Your task to perform on an android device: Open settings on Google Maps Image 0: 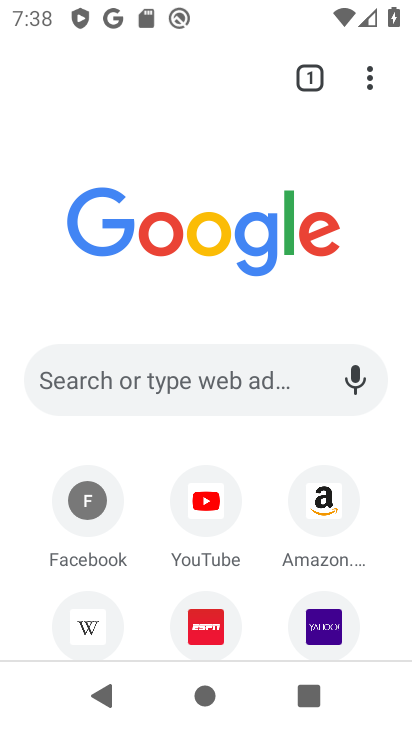
Step 0: press home button
Your task to perform on an android device: Open settings on Google Maps Image 1: 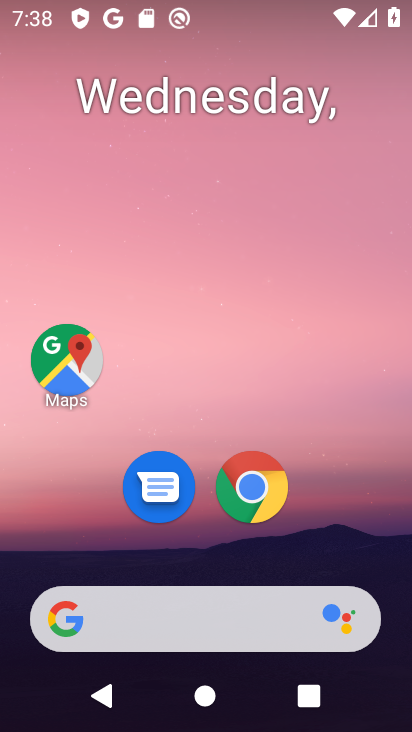
Step 1: drag from (139, 646) to (163, 125)
Your task to perform on an android device: Open settings on Google Maps Image 2: 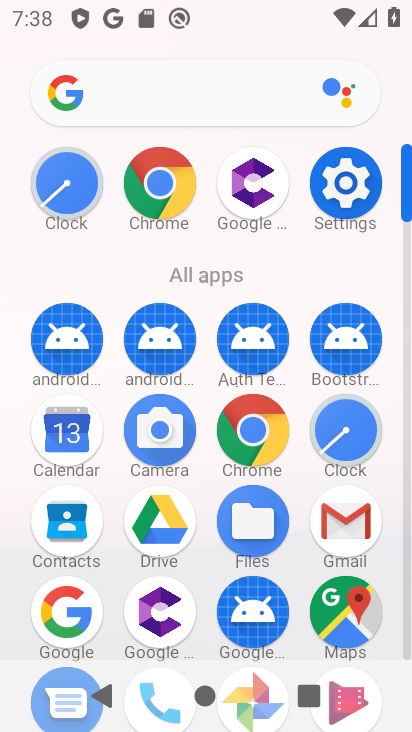
Step 2: drag from (246, 443) to (249, 189)
Your task to perform on an android device: Open settings on Google Maps Image 3: 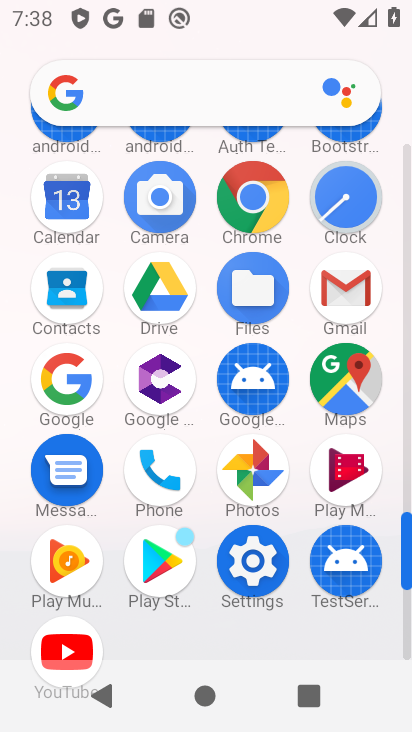
Step 3: click (350, 390)
Your task to perform on an android device: Open settings on Google Maps Image 4: 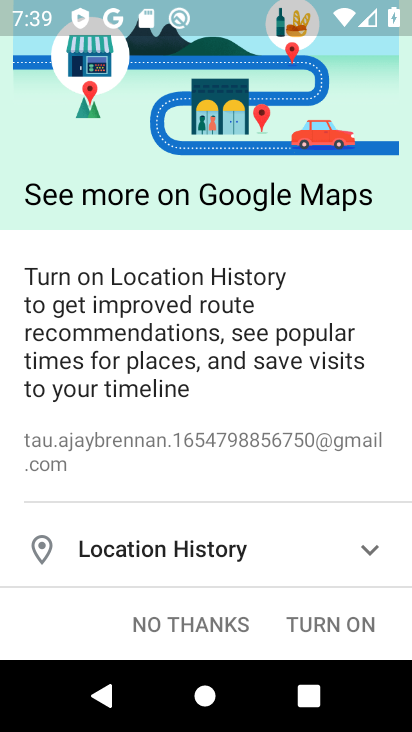
Step 4: click (341, 624)
Your task to perform on an android device: Open settings on Google Maps Image 5: 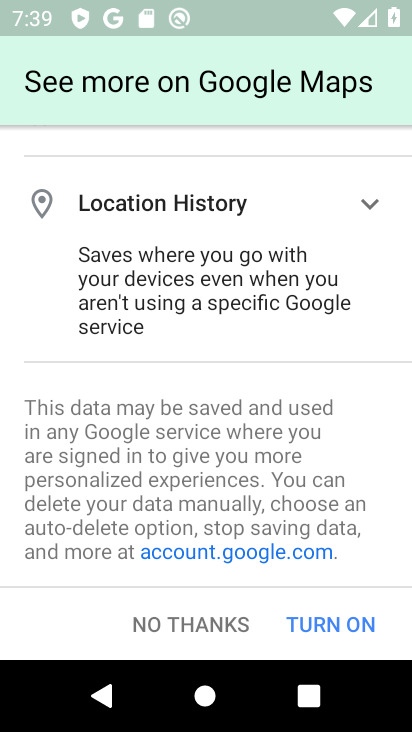
Step 5: click (343, 624)
Your task to perform on an android device: Open settings on Google Maps Image 6: 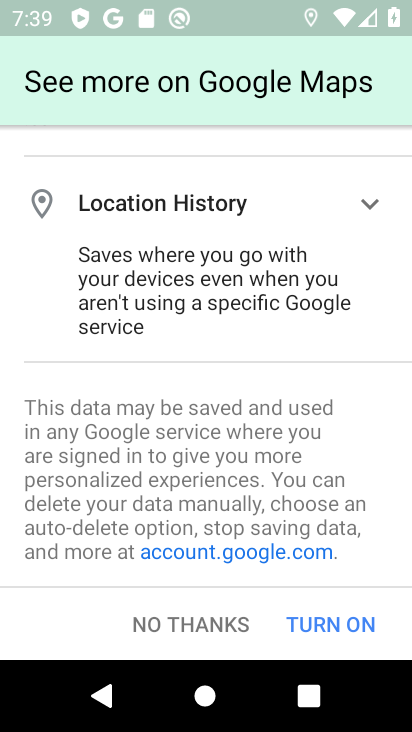
Step 6: click (345, 623)
Your task to perform on an android device: Open settings on Google Maps Image 7: 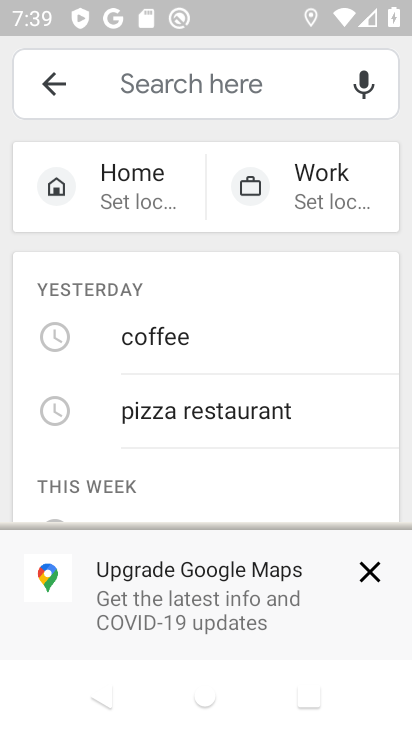
Step 7: click (374, 579)
Your task to perform on an android device: Open settings on Google Maps Image 8: 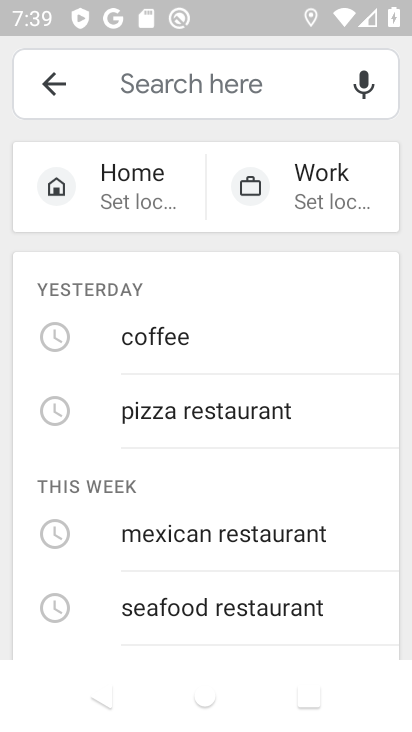
Step 8: click (58, 88)
Your task to perform on an android device: Open settings on Google Maps Image 9: 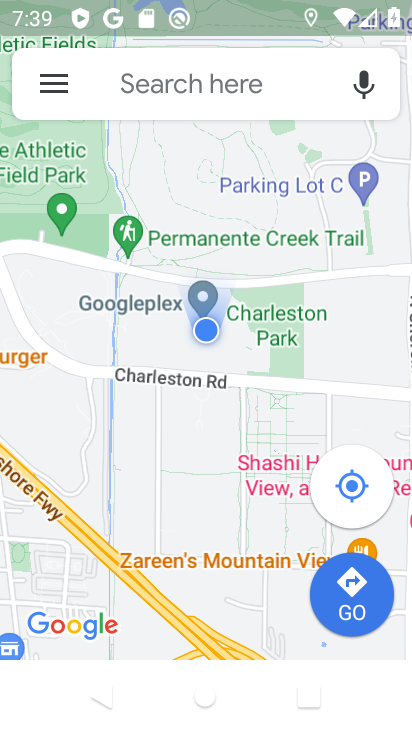
Step 9: click (59, 90)
Your task to perform on an android device: Open settings on Google Maps Image 10: 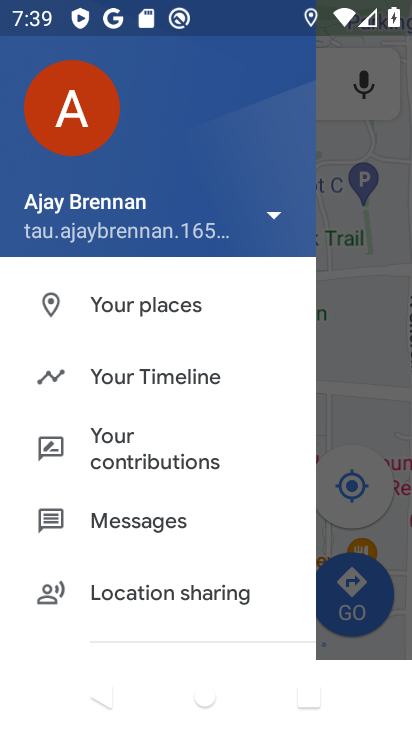
Step 10: drag from (140, 577) to (146, 236)
Your task to perform on an android device: Open settings on Google Maps Image 11: 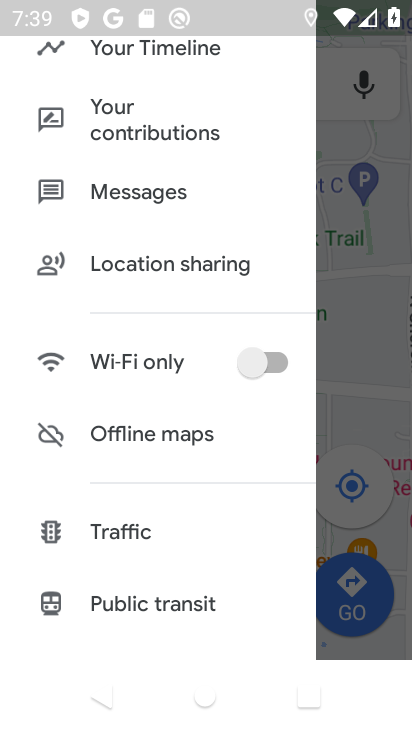
Step 11: drag from (138, 537) to (132, 172)
Your task to perform on an android device: Open settings on Google Maps Image 12: 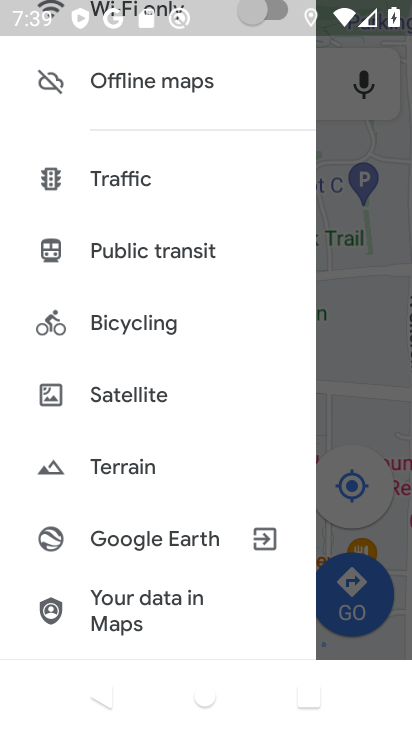
Step 12: drag from (124, 505) to (104, 209)
Your task to perform on an android device: Open settings on Google Maps Image 13: 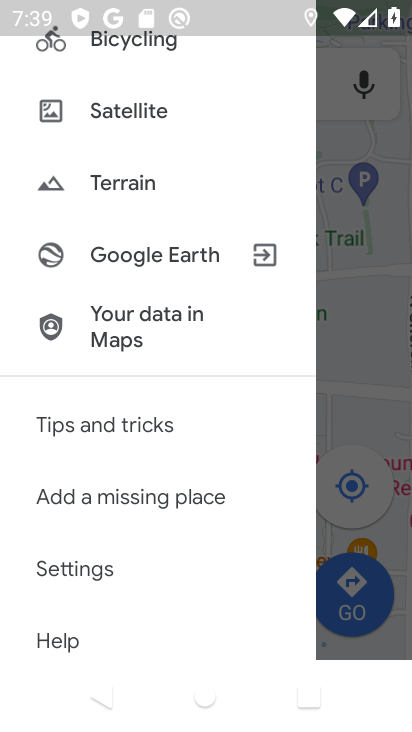
Step 13: click (101, 575)
Your task to perform on an android device: Open settings on Google Maps Image 14: 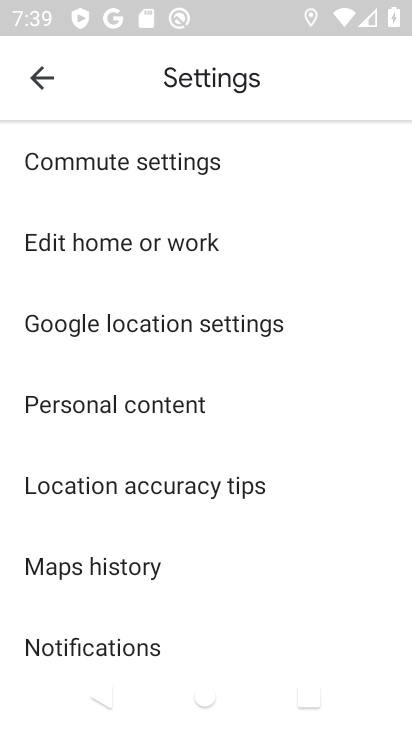
Step 14: task complete